Your task to perform on an android device: Search for vegetarian restaurants on Maps Image 0: 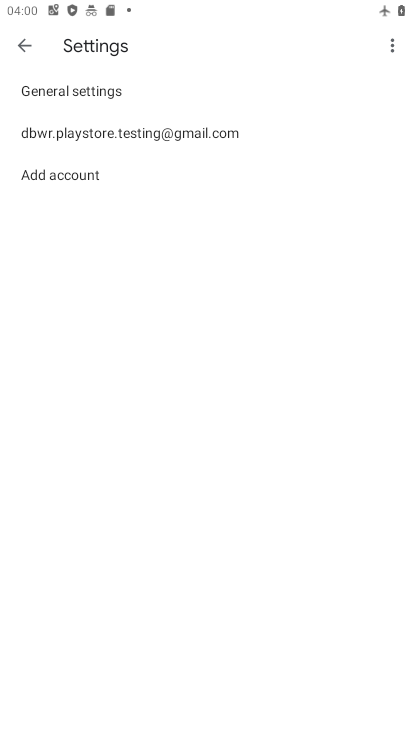
Step 0: press home button
Your task to perform on an android device: Search for vegetarian restaurants on Maps Image 1: 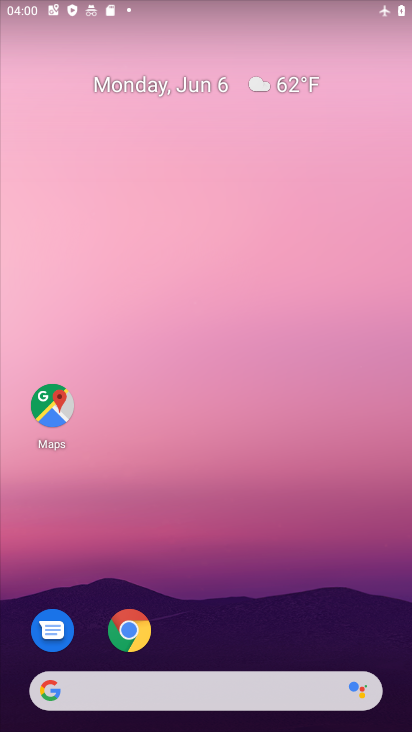
Step 1: click (50, 413)
Your task to perform on an android device: Search for vegetarian restaurants on Maps Image 2: 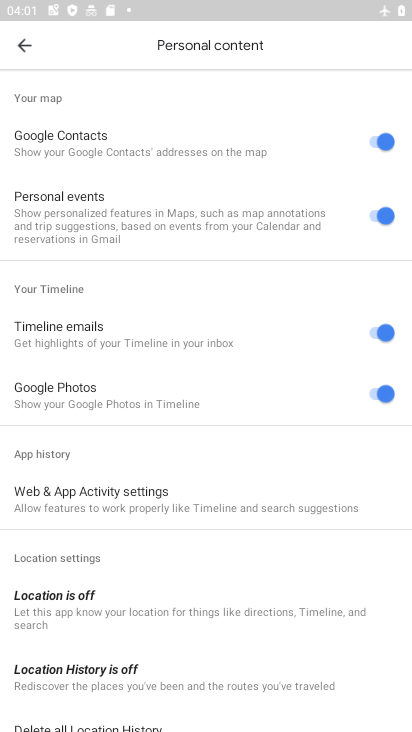
Step 2: click (28, 37)
Your task to perform on an android device: Search for vegetarian restaurants on Maps Image 3: 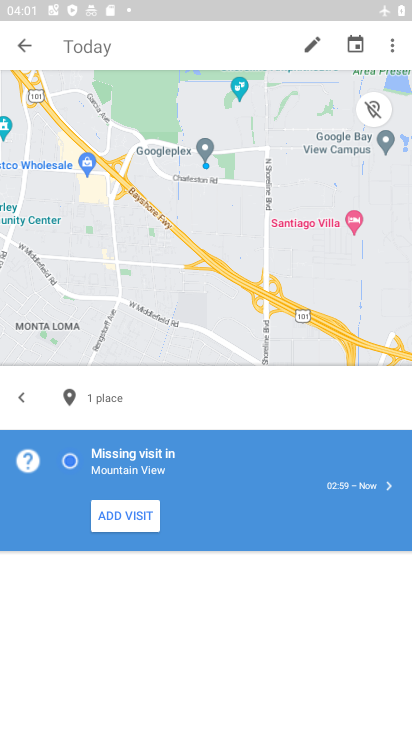
Step 3: click (28, 50)
Your task to perform on an android device: Search for vegetarian restaurants on Maps Image 4: 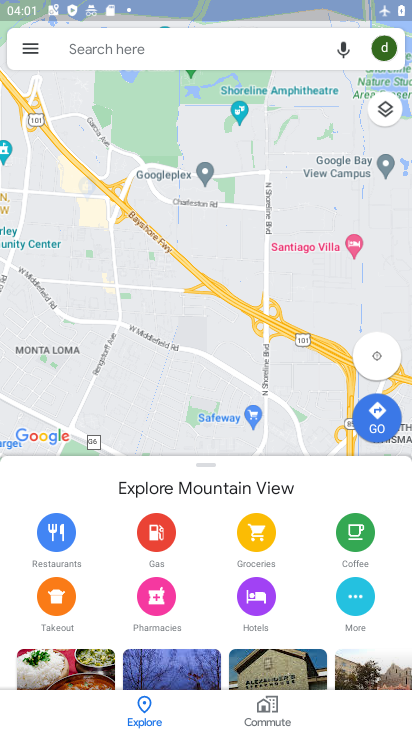
Step 4: click (173, 42)
Your task to perform on an android device: Search for vegetarian restaurants on Maps Image 5: 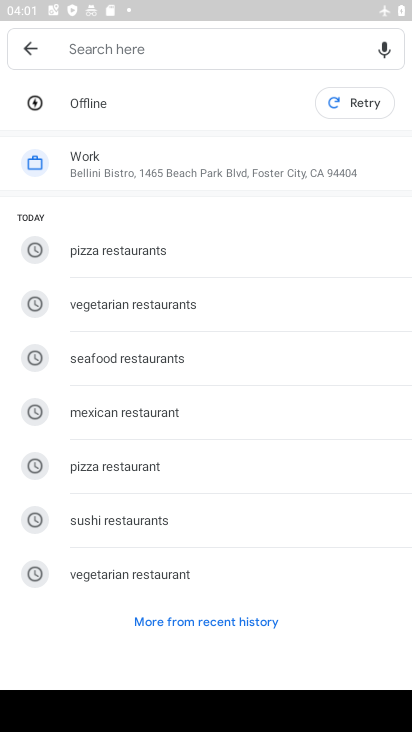
Step 5: type " vegetarian restaurants"
Your task to perform on an android device: Search for vegetarian restaurants on Maps Image 6: 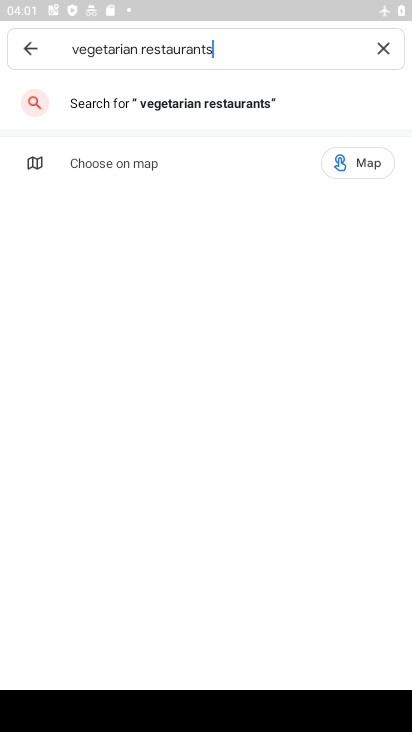
Step 6: type ""
Your task to perform on an android device: Search for vegetarian restaurants on Maps Image 7: 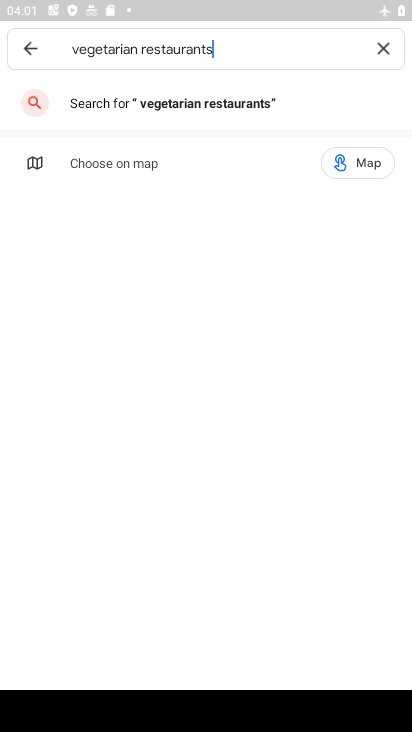
Step 7: click (229, 103)
Your task to perform on an android device: Search for vegetarian restaurants on Maps Image 8: 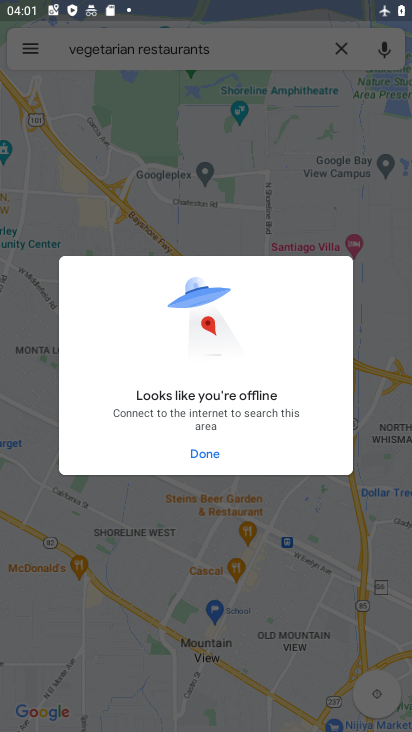
Step 8: drag from (399, 6) to (272, 620)
Your task to perform on an android device: Search for vegetarian restaurants on Maps Image 9: 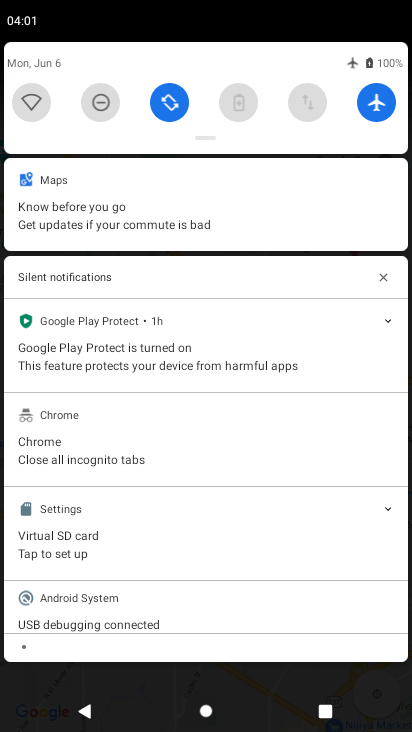
Step 9: click (365, 96)
Your task to perform on an android device: Search for vegetarian restaurants on Maps Image 10: 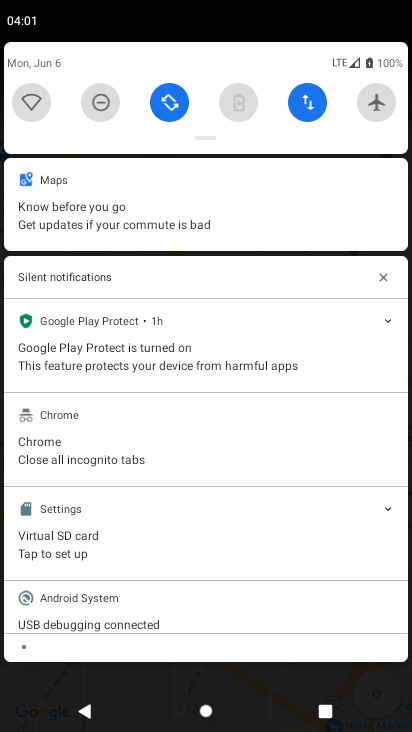
Step 10: drag from (288, 659) to (211, 203)
Your task to perform on an android device: Search for vegetarian restaurants on Maps Image 11: 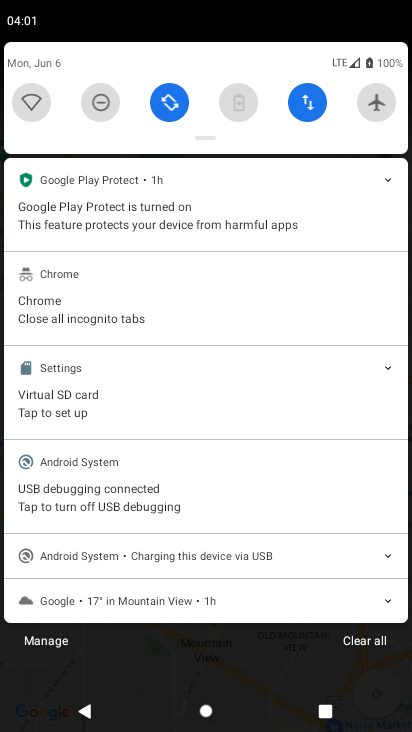
Step 11: drag from (222, 625) to (262, 59)
Your task to perform on an android device: Search for vegetarian restaurants on Maps Image 12: 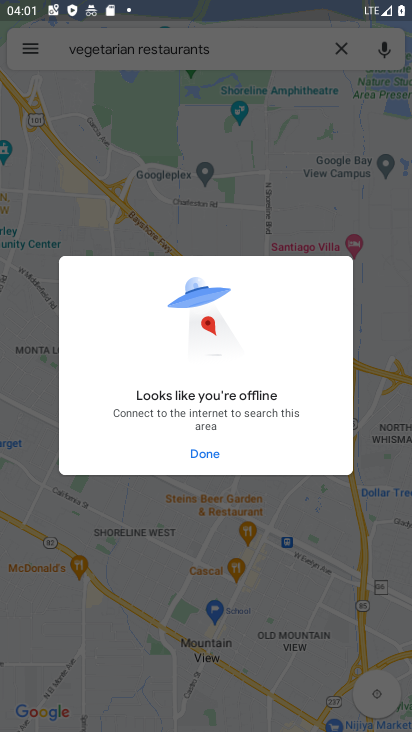
Step 12: click (210, 461)
Your task to perform on an android device: Search for vegetarian restaurants on Maps Image 13: 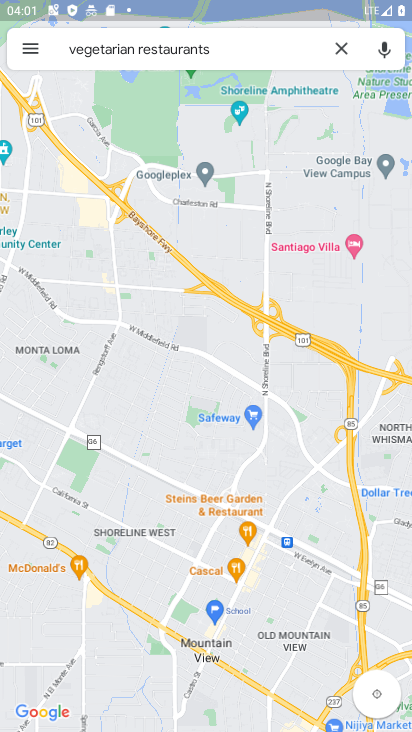
Step 13: click (241, 55)
Your task to perform on an android device: Search for vegetarian restaurants on Maps Image 14: 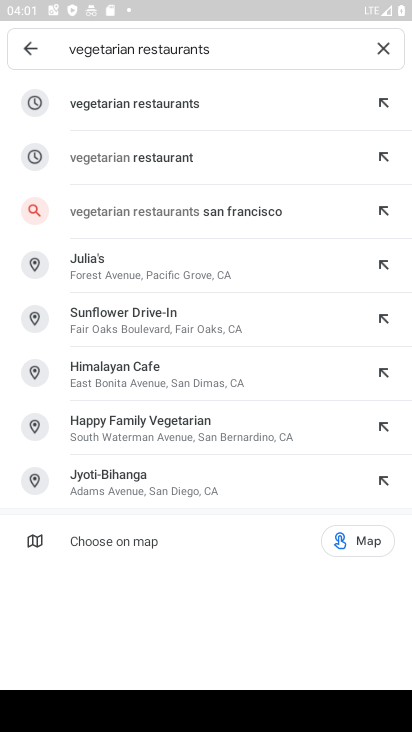
Step 14: click (235, 97)
Your task to perform on an android device: Search for vegetarian restaurants on Maps Image 15: 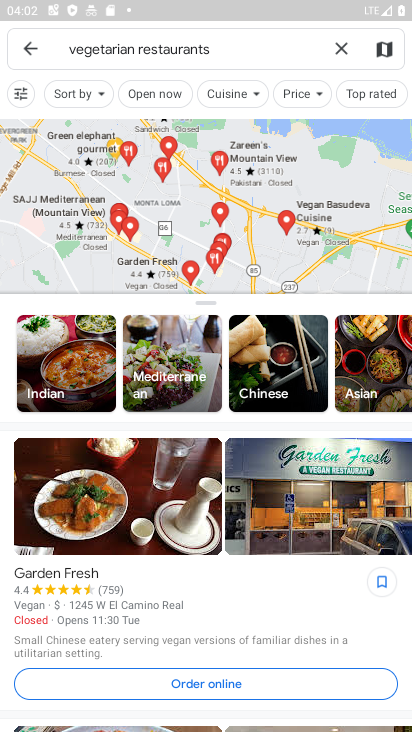
Step 15: task complete